Your task to perform on an android device: turn on showing notifications on the lock screen Image 0: 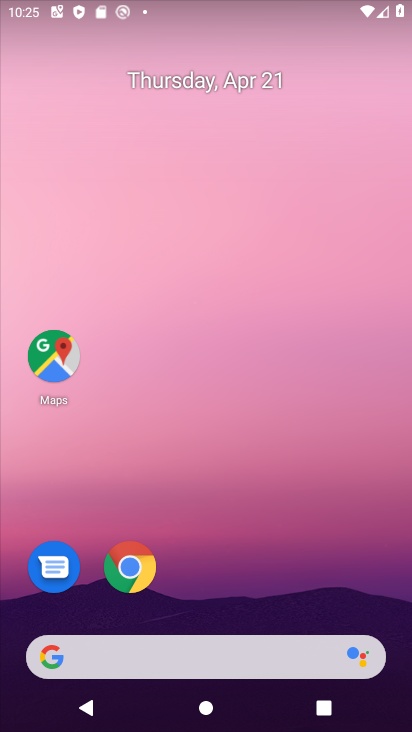
Step 0: drag from (223, 610) to (296, 152)
Your task to perform on an android device: turn on showing notifications on the lock screen Image 1: 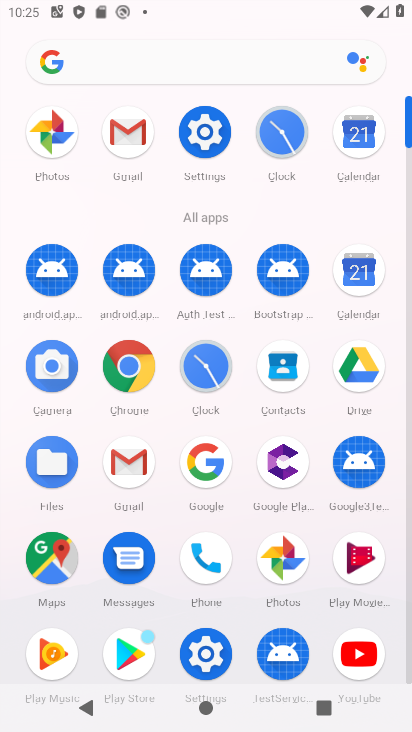
Step 1: click (204, 142)
Your task to perform on an android device: turn on showing notifications on the lock screen Image 2: 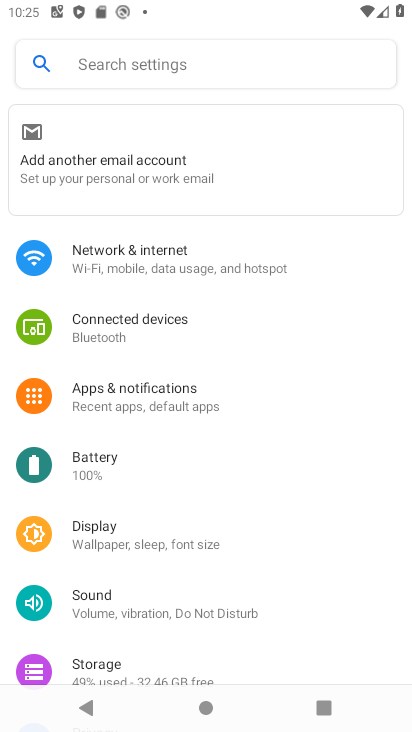
Step 2: click (174, 281)
Your task to perform on an android device: turn on showing notifications on the lock screen Image 3: 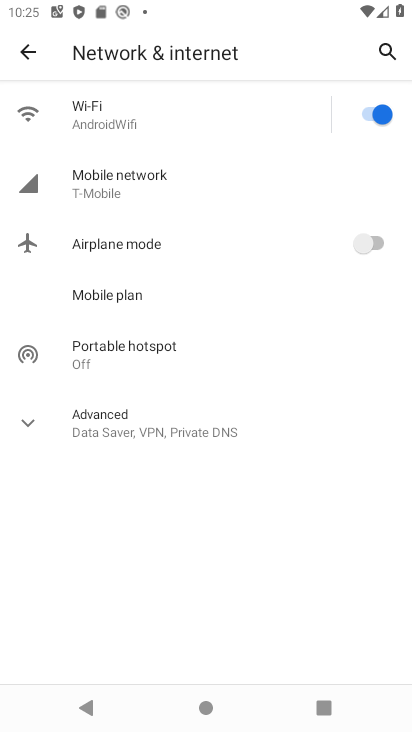
Step 3: click (37, 52)
Your task to perform on an android device: turn on showing notifications on the lock screen Image 4: 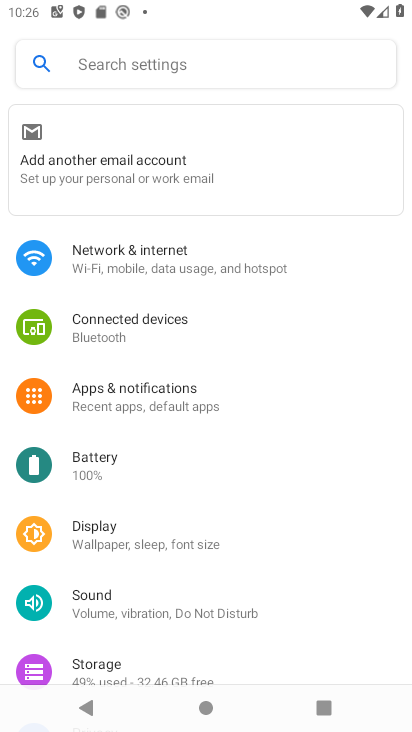
Step 4: click (130, 401)
Your task to perform on an android device: turn on showing notifications on the lock screen Image 5: 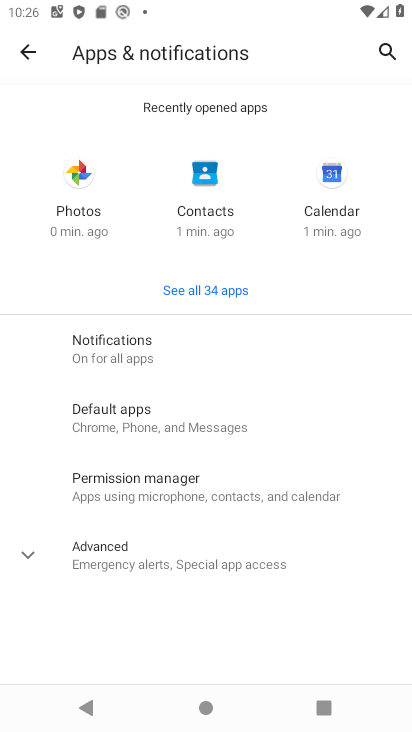
Step 5: click (140, 341)
Your task to perform on an android device: turn on showing notifications on the lock screen Image 6: 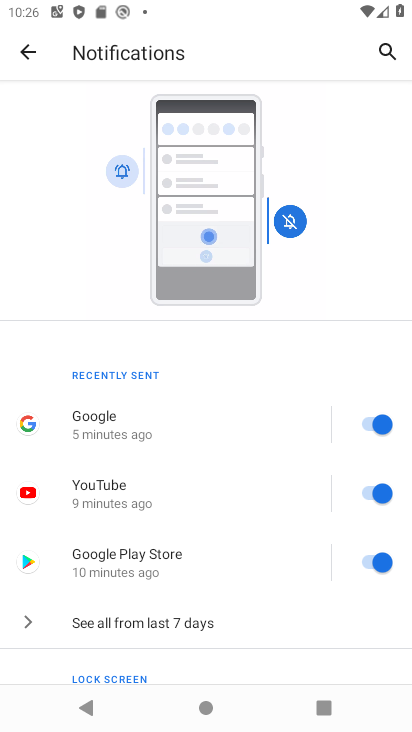
Step 6: drag from (170, 621) to (208, 349)
Your task to perform on an android device: turn on showing notifications on the lock screen Image 7: 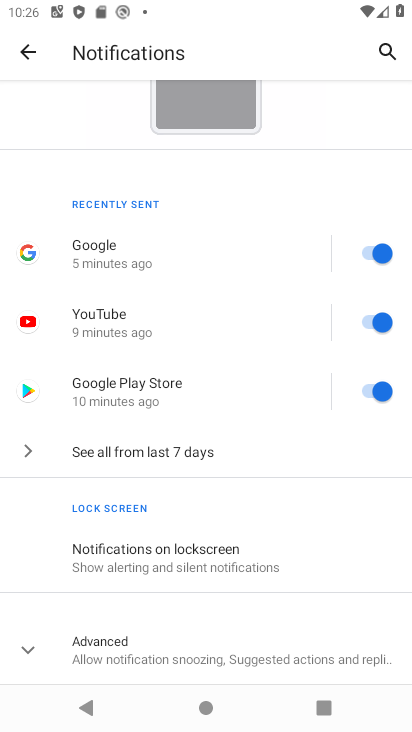
Step 7: click (198, 570)
Your task to perform on an android device: turn on showing notifications on the lock screen Image 8: 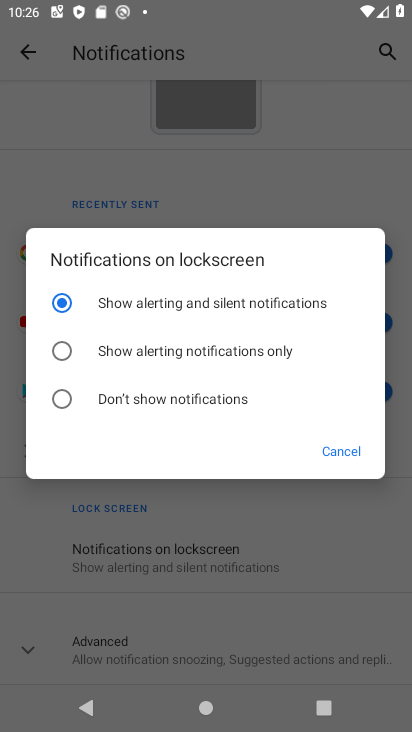
Step 8: task complete